Your task to perform on an android device: open device folders in google photos Image 0: 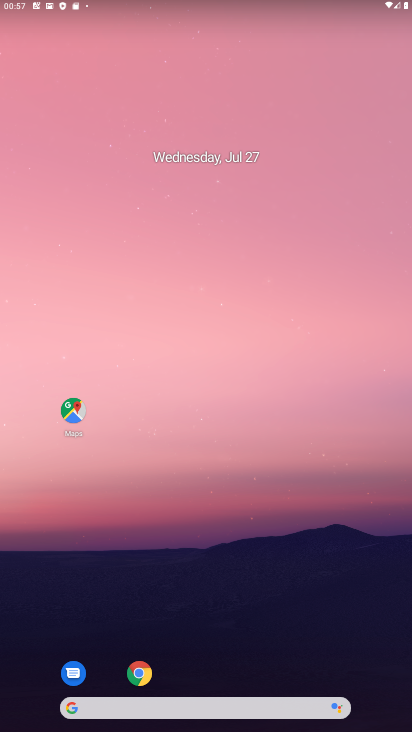
Step 0: drag from (217, 627) to (253, 172)
Your task to perform on an android device: open device folders in google photos Image 1: 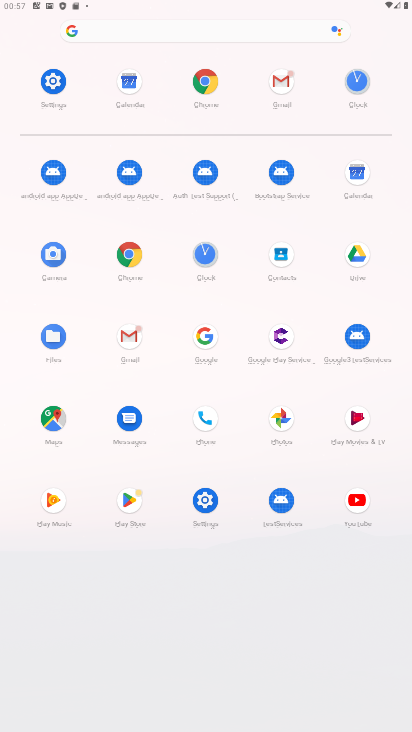
Step 1: click (276, 411)
Your task to perform on an android device: open device folders in google photos Image 2: 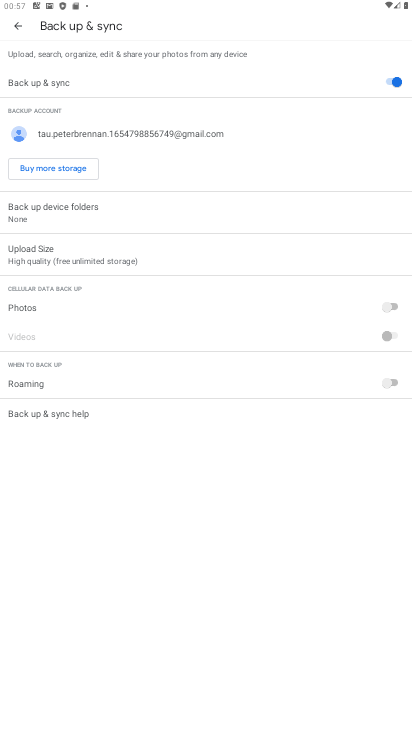
Step 2: click (10, 22)
Your task to perform on an android device: open device folders in google photos Image 3: 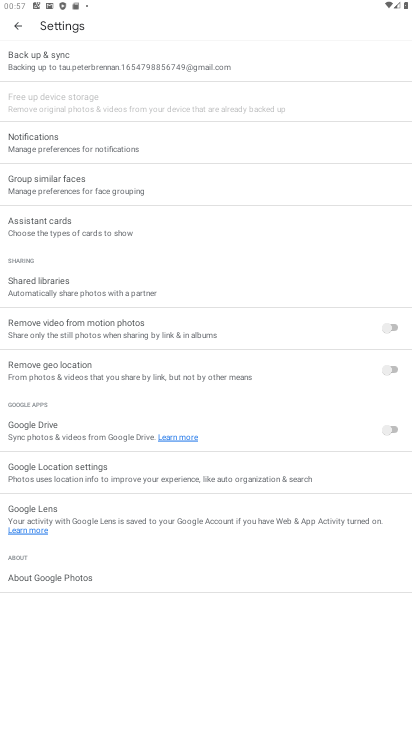
Step 3: click (17, 20)
Your task to perform on an android device: open device folders in google photos Image 4: 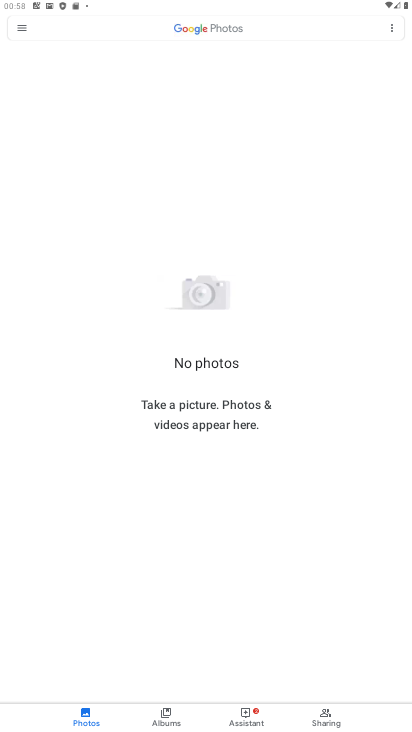
Step 4: task complete